Your task to perform on an android device: set the timer Image 0: 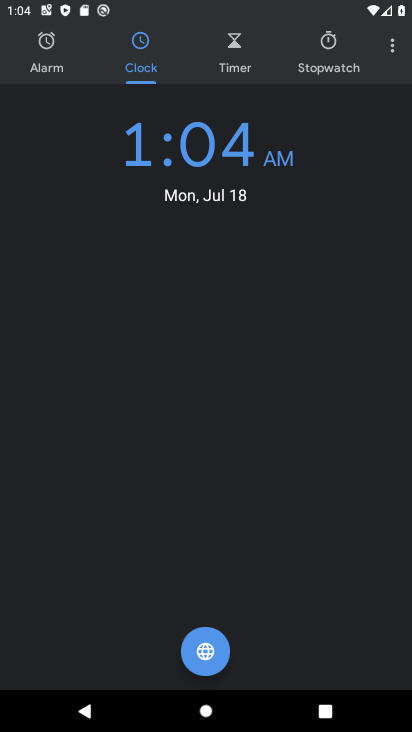
Step 0: click (232, 56)
Your task to perform on an android device: set the timer Image 1: 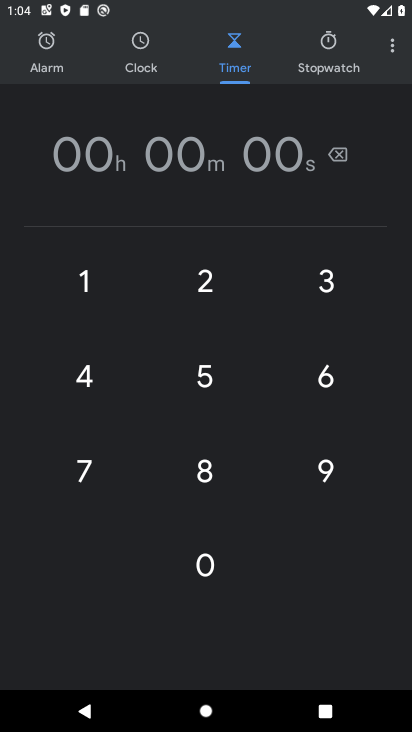
Step 1: click (83, 284)
Your task to perform on an android device: set the timer Image 2: 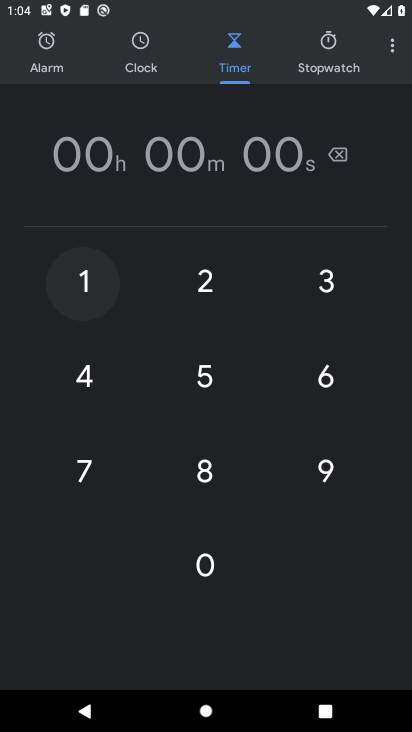
Step 2: click (83, 284)
Your task to perform on an android device: set the timer Image 3: 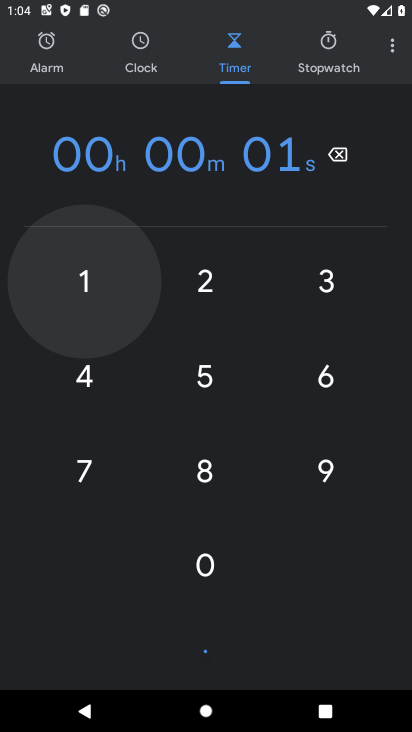
Step 3: click (83, 284)
Your task to perform on an android device: set the timer Image 4: 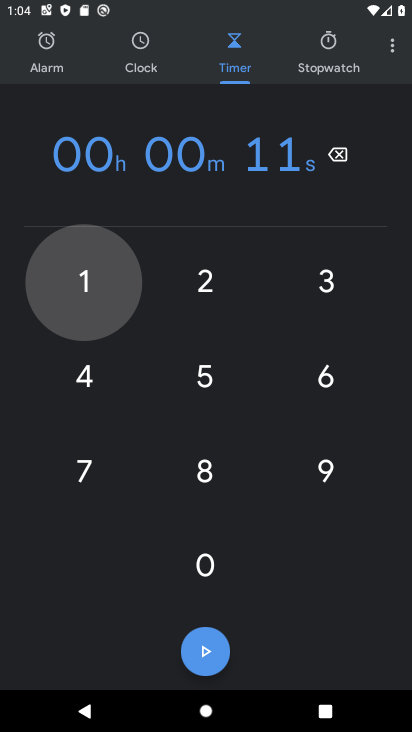
Step 4: click (83, 284)
Your task to perform on an android device: set the timer Image 5: 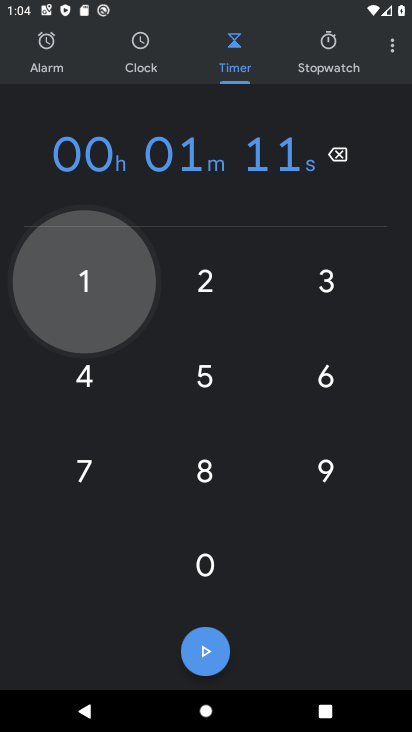
Step 5: click (83, 284)
Your task to perform on an android device: set the timer Image 6: 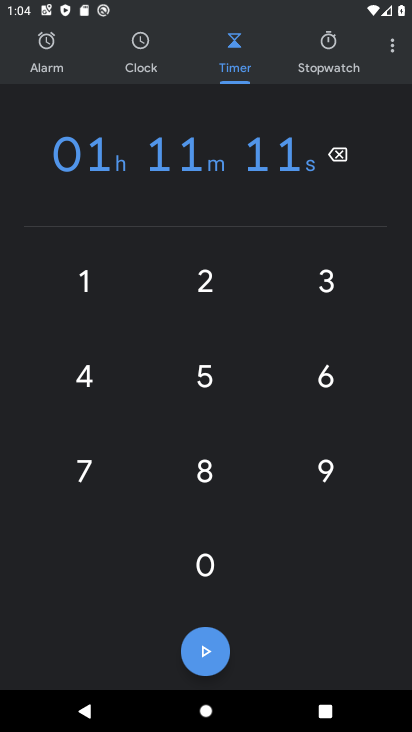
Step 6: task complete